Your task to perform on an android device: open wifi settings Image 0: 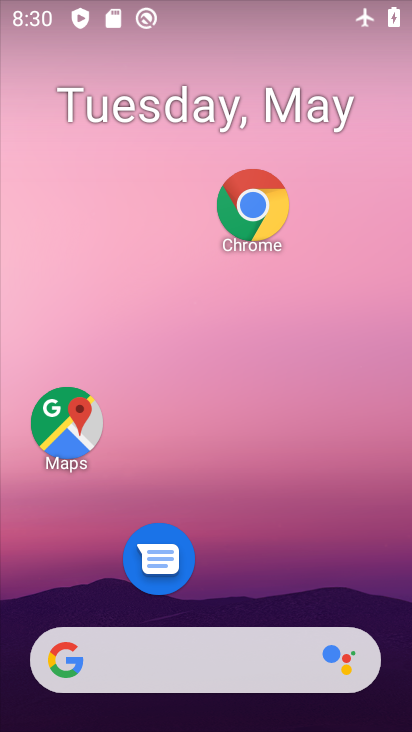
Step 0: drag from (259, 598) to (259, 64)
Your task to perform on an android device: open wifi settings Image 1: 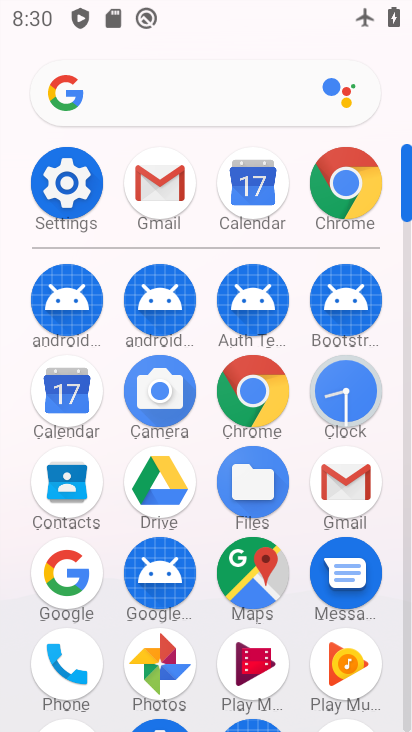
Step 1: click (83, 178)
Your task to perform on an android device: open wifi settings Image 2: 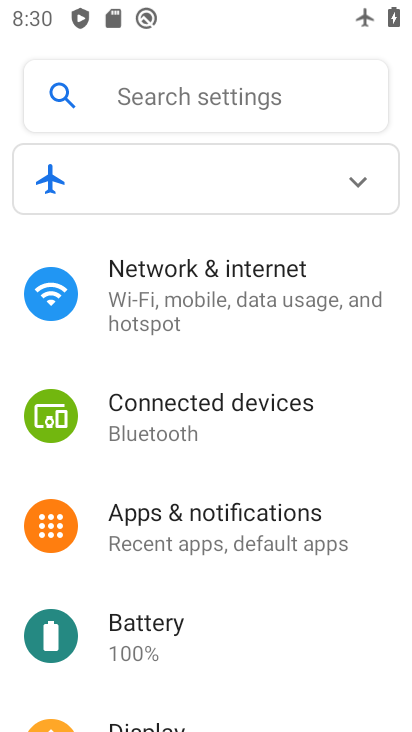
Step 2: click (178, 279)
Your task to perform on an android device: open wifi settings Image 3: 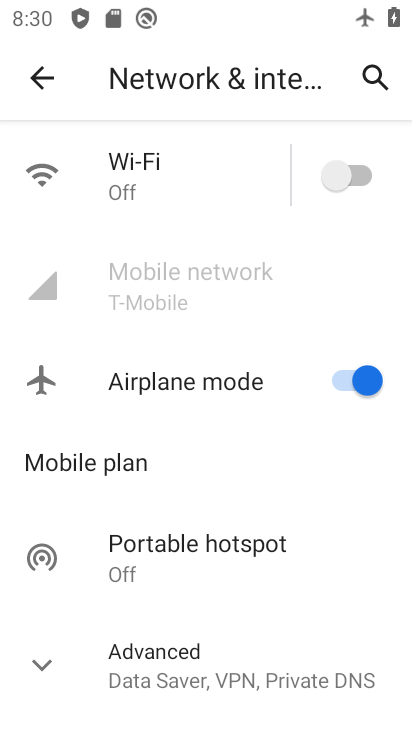
Step 3: click (134, 190)
Your task to perform on an android device: open wifi settings Image 4: 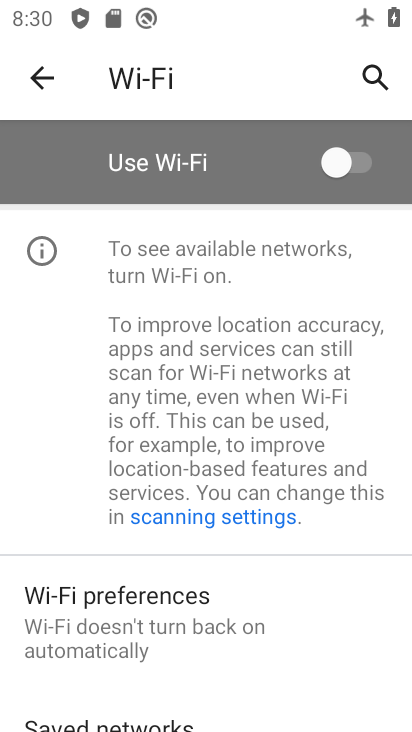
Step 4: task complete